Your task to perform on an android device: Set the phone to "Do not disturb". Image 0: 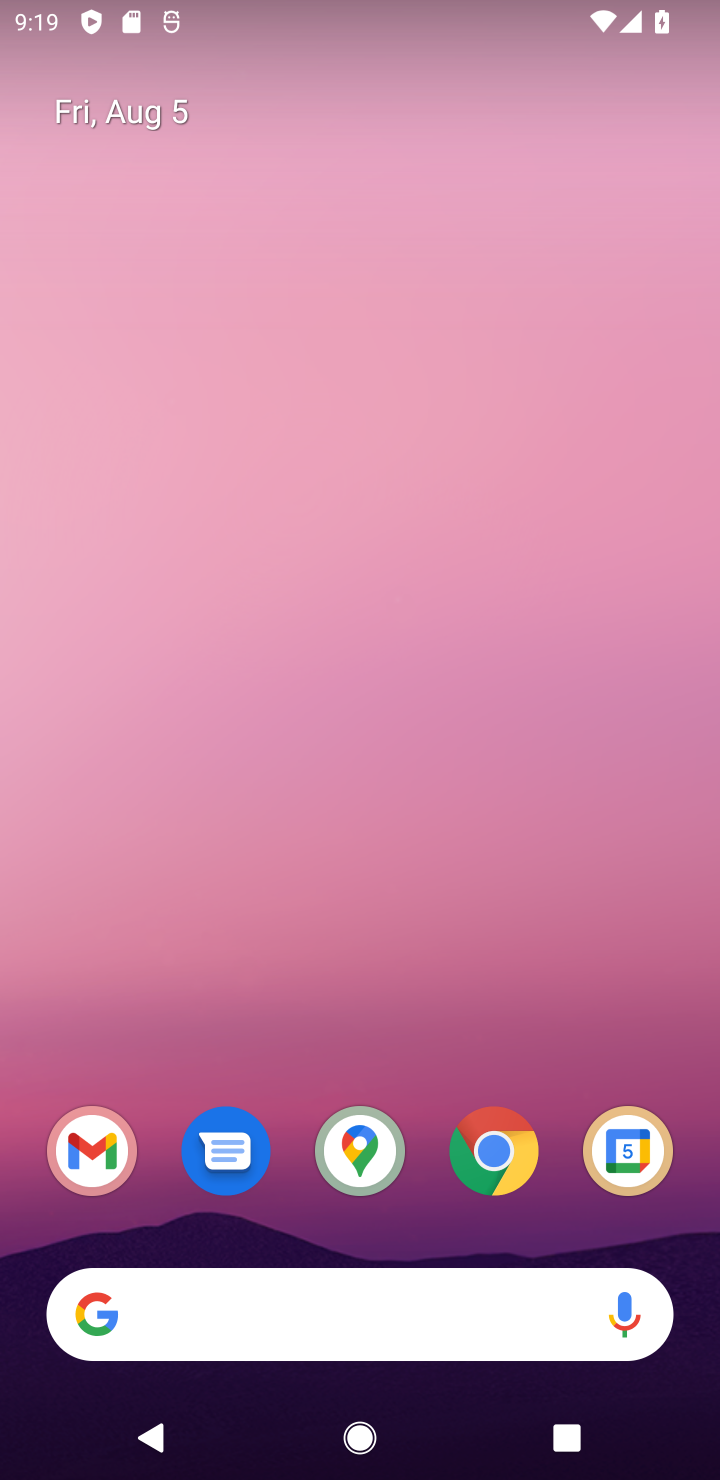
Step 0: drag from (315, 1220) to (289, 448)
Your task to perform on an android device: Set the phone to "Do not disturb". Image 1: 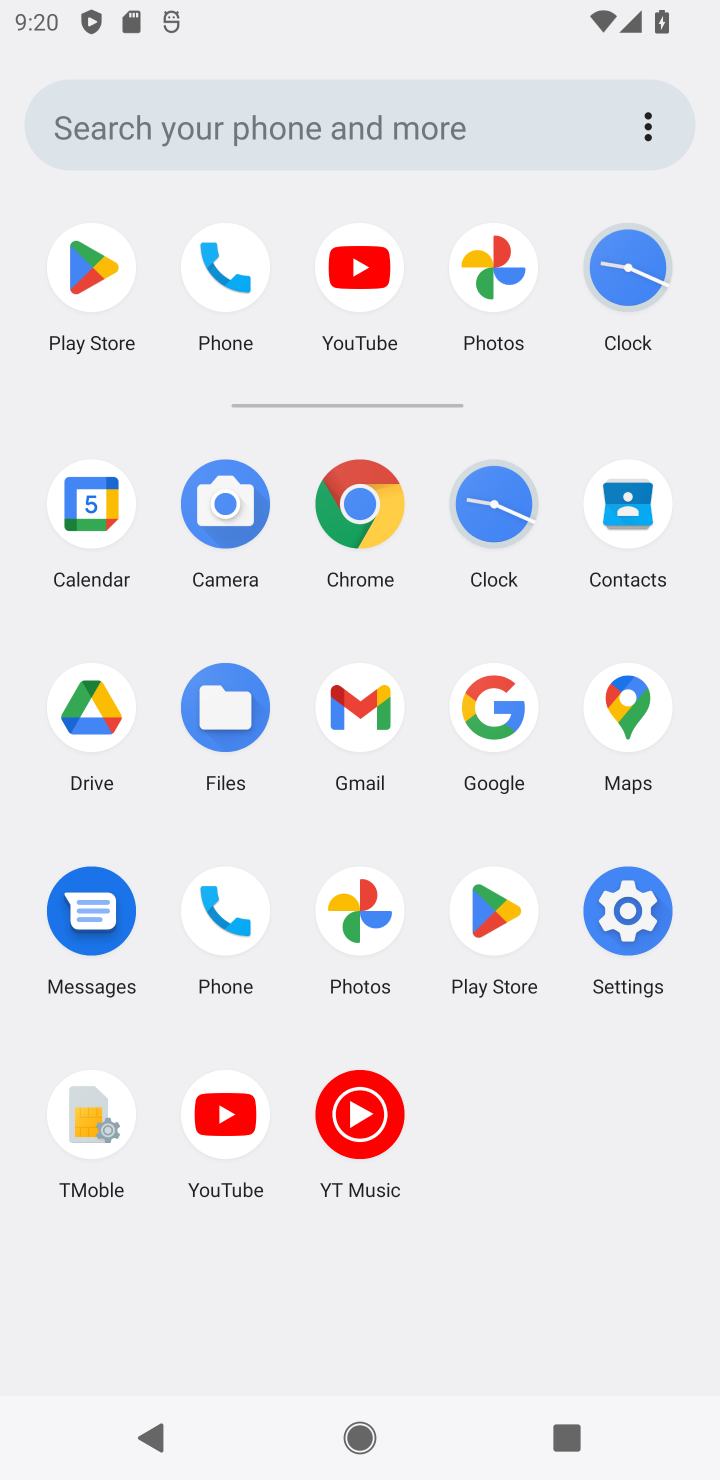
Step 1: click (627, 912)
Your task to perform on an android device: Set the phone to "Do not disturb". Image 2: 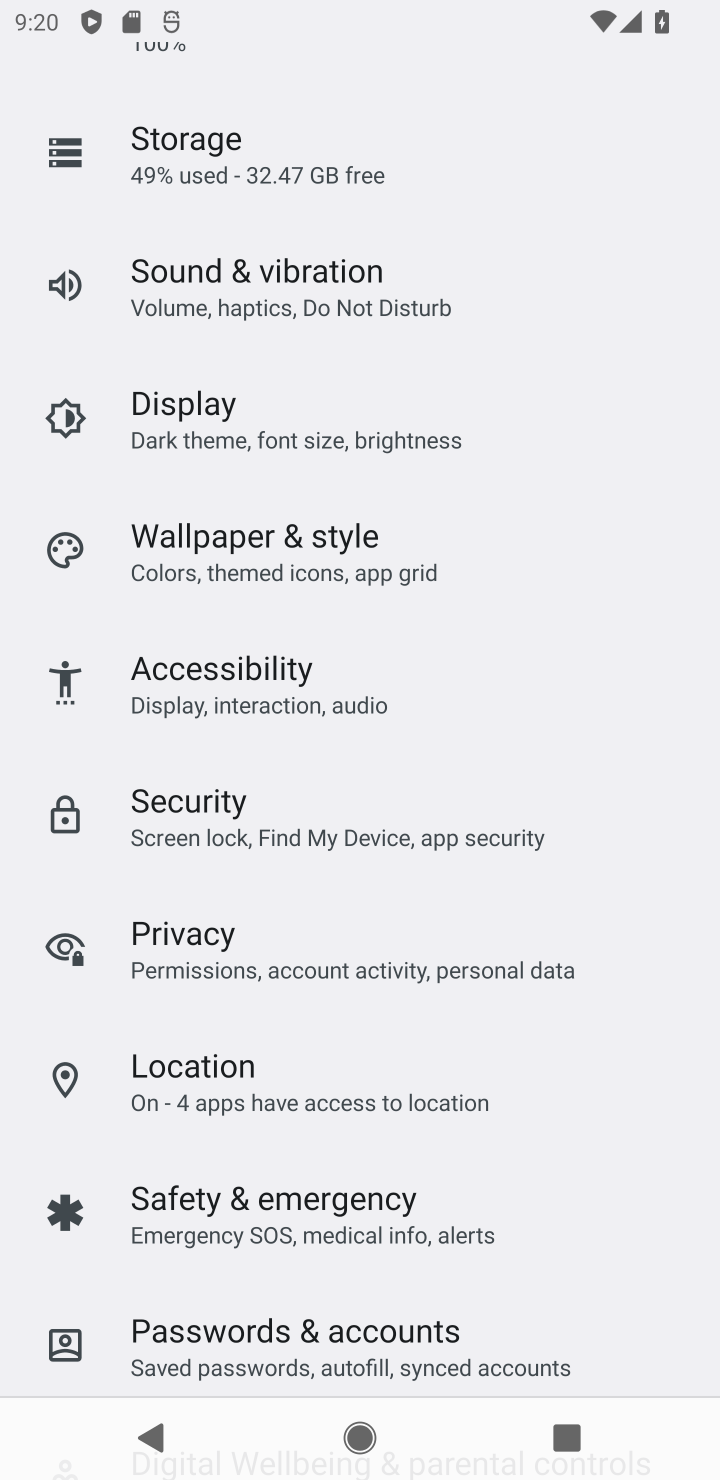
Step 2: click (286, 287)
Your task to perform on an android device: Set the phone to "Do not disturb". Image 3: 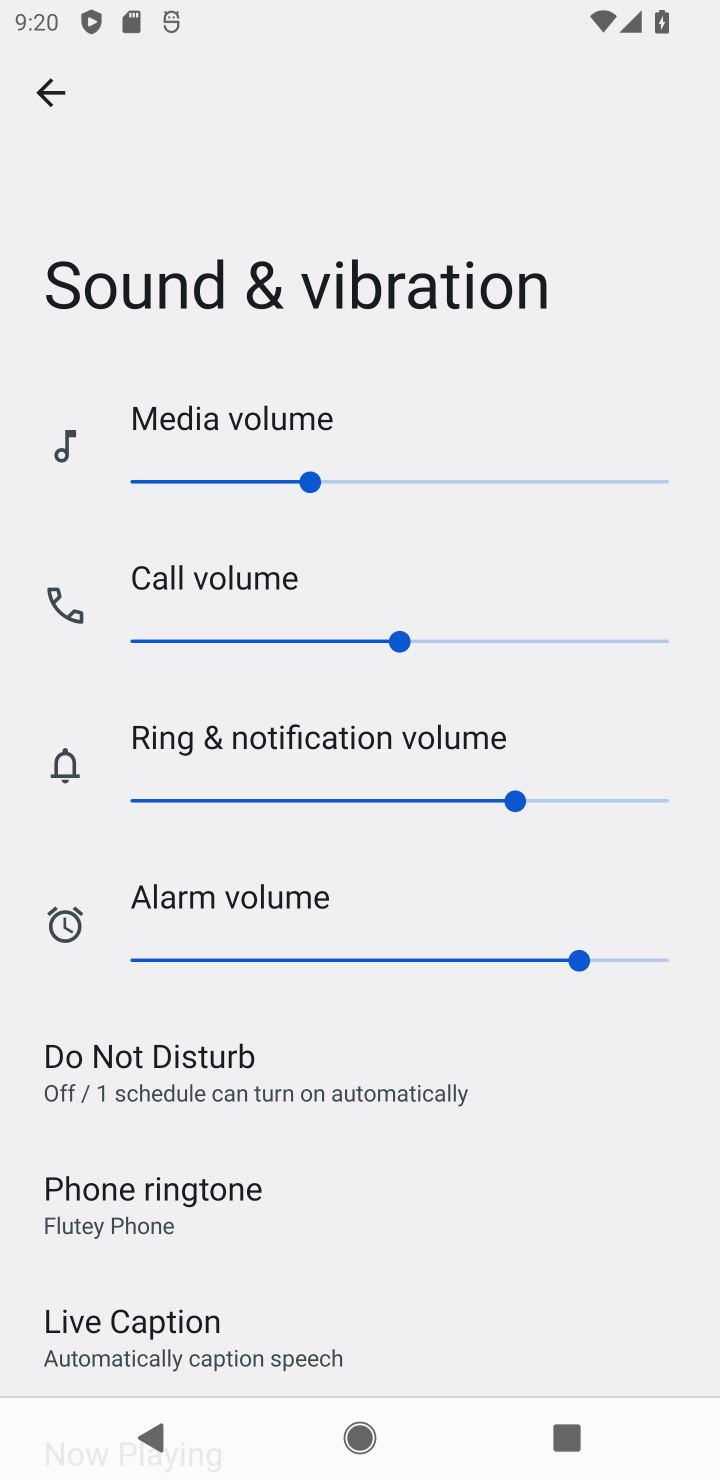
Step 3: click (149, 1100)
Your task to perform on an android device: Set the phone to "Do not disturb". Image 4: 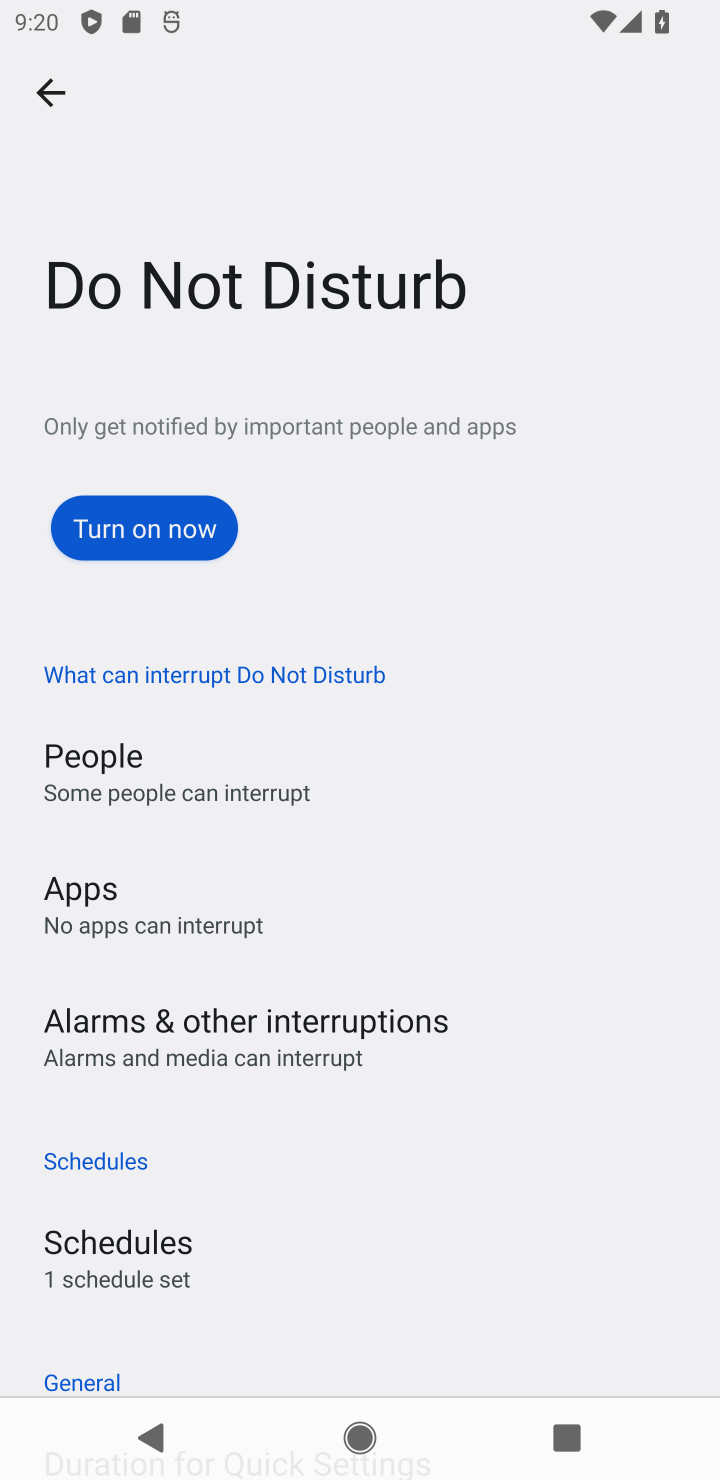
Step 4: click (148, 527)
Your task to perform on an android device: Set the phone to "Do not disturb". Image 5: 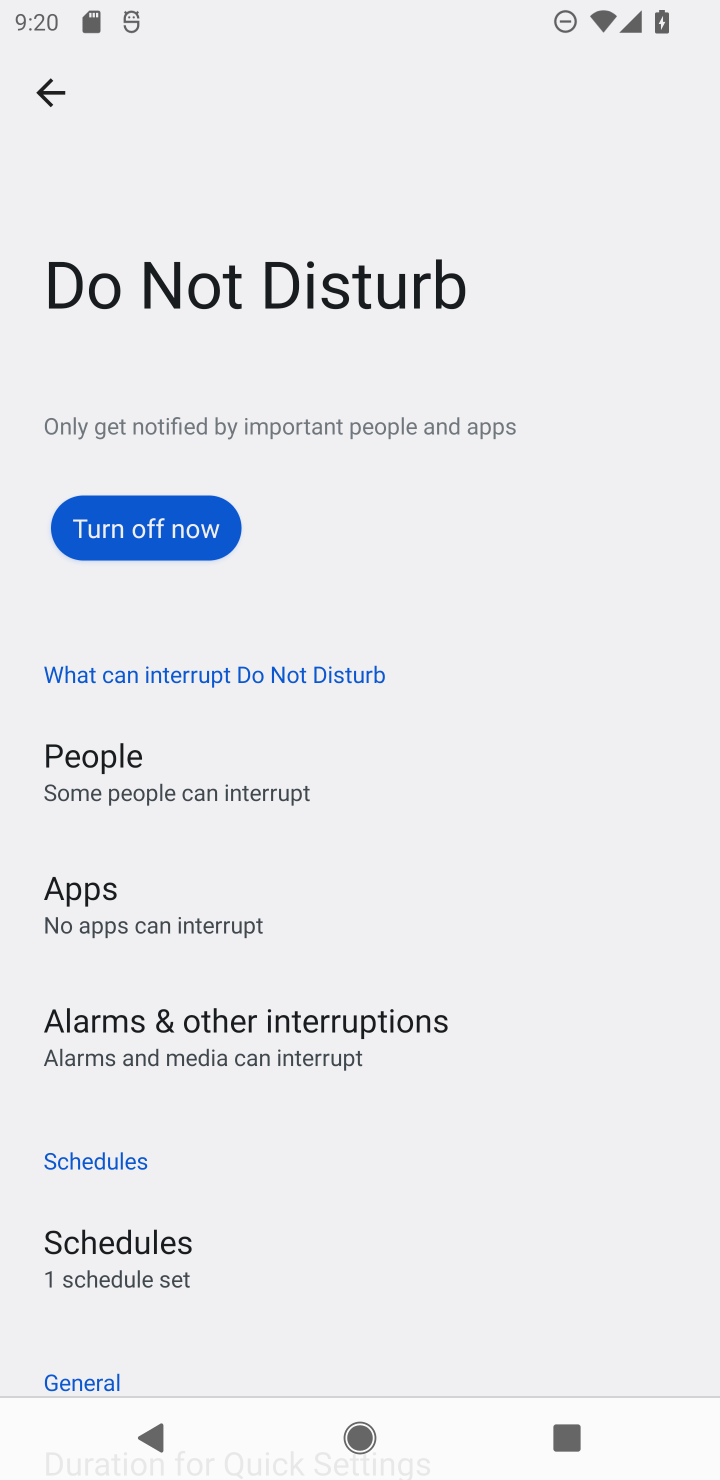
Step 5: task complete